Your task to perform on an android device: Turn off the flashlight Image 0: 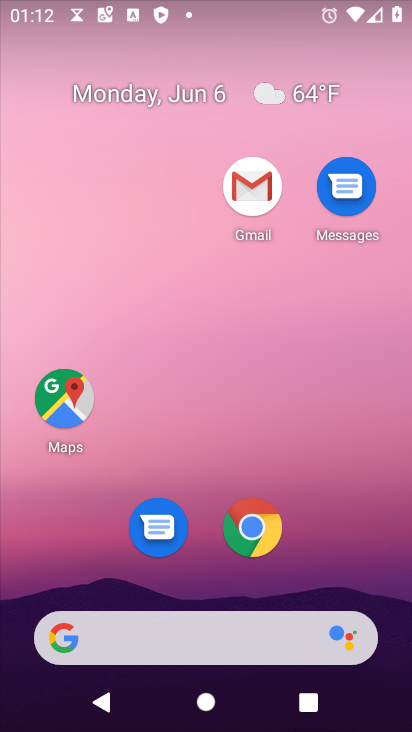
Step 0: drag from (347, 551) to (323, 67)
Your task to perform on an android device: Turn off the flashlight Image 1: 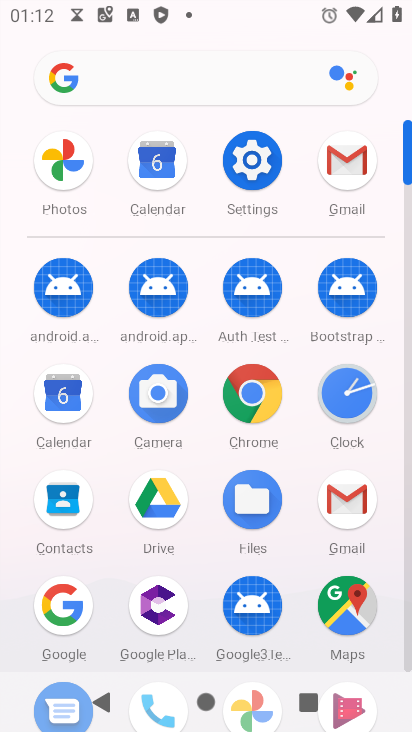
Step 1: click (244, 164)
Your task to perform on an android device: Turn off the flashlight Image 2: 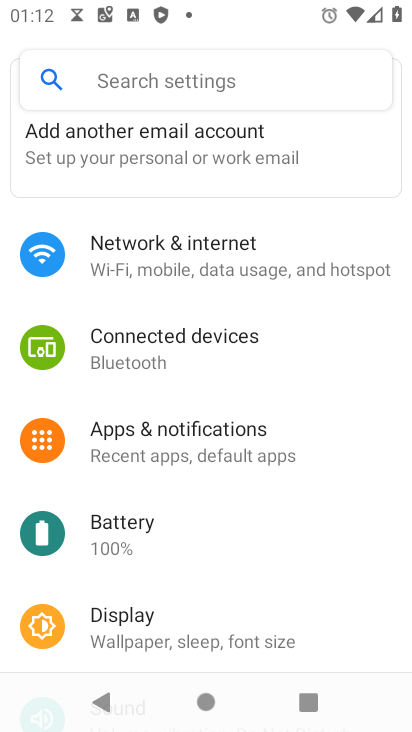
Step 2: click (231, 452)
Your task to perform on an android device: Turn off the flashlight Image 3: 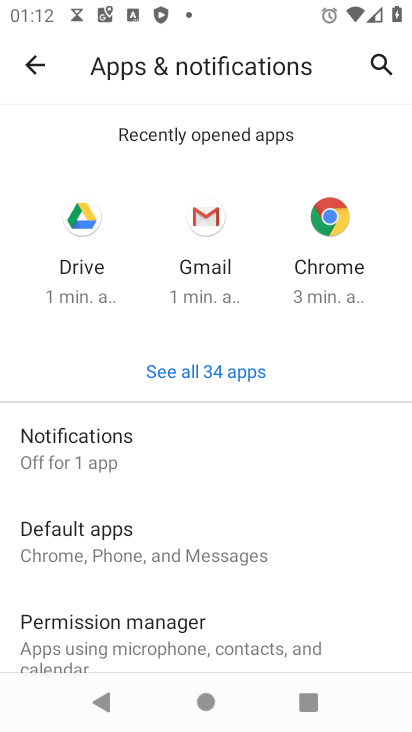
Step 3: drag from (265, 610) to (277, 201)
Your task to perform on an android device: Turn off the flashlight Image 4: 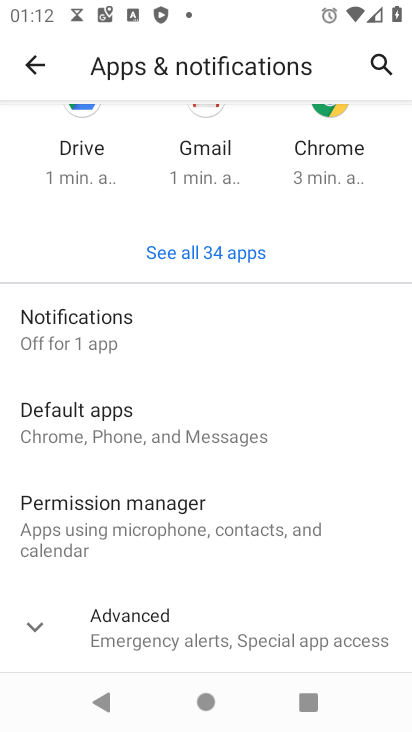
Step 4: click (241, 636)
Your task to perform on an android device: Turn off the flashlight Image 5: 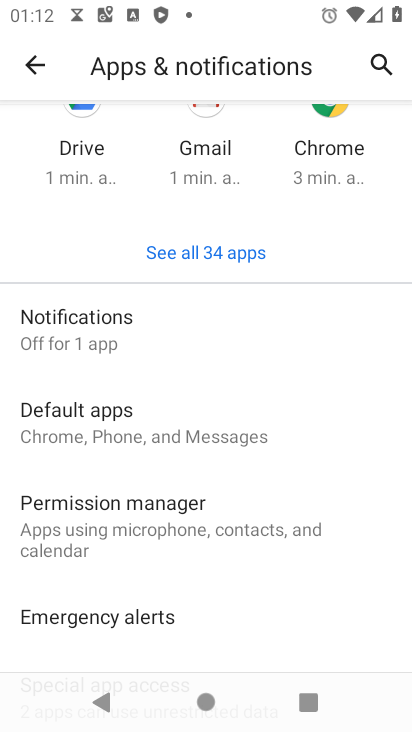
Step 5: drag from (257, 596) to (305, 87)
Your task to perform on an android device: Turn off the flashlight Image 6: 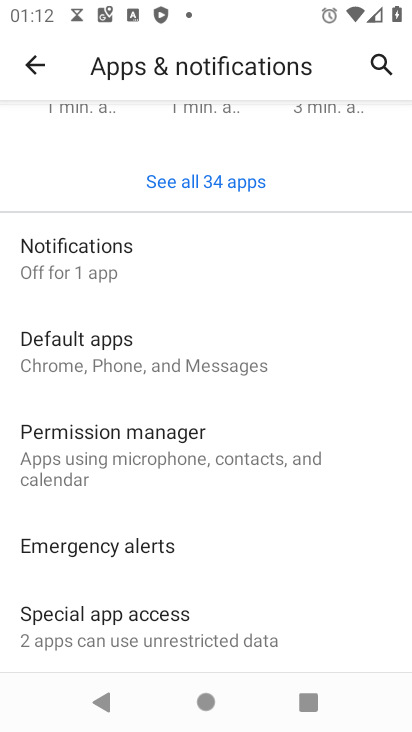
Step 6: click (196, 617)
Your task to perform on an android device: Turn off the flashlight Image 7: 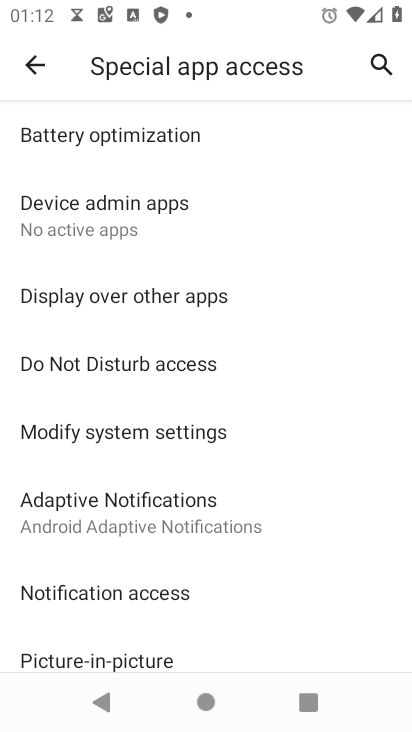
Step 7: task complete